Your task to perform on an android device: When is my next meeting? Image 0: 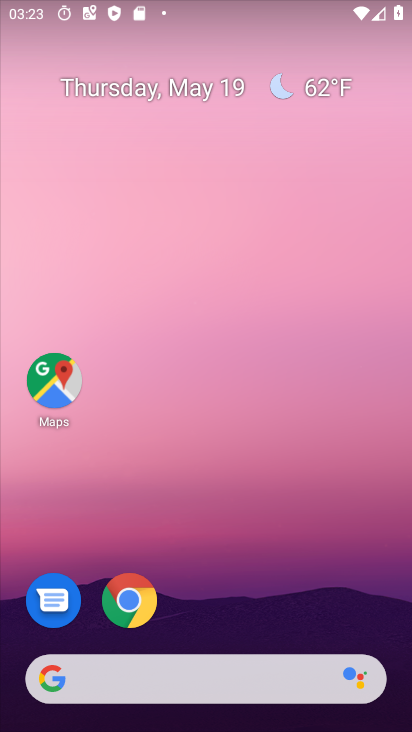
Step 0: drag from (73, 458) to (210, 142)
Your task to perform on an android device: When is my next meeting? Image 1: 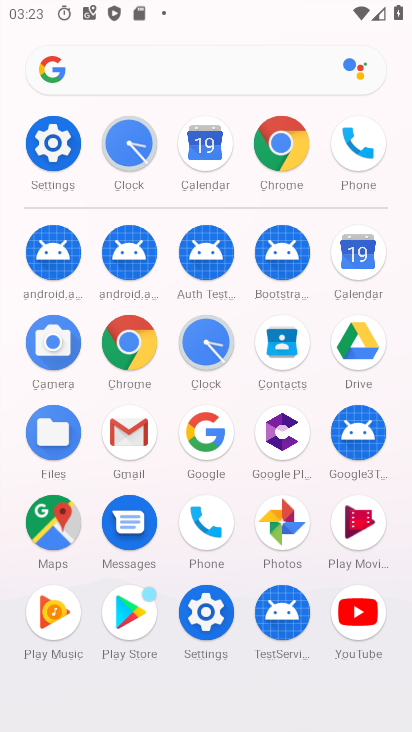
Step 1: click (363, 279)
Your task to perform on an android device: When is my next meeting? Image 2: 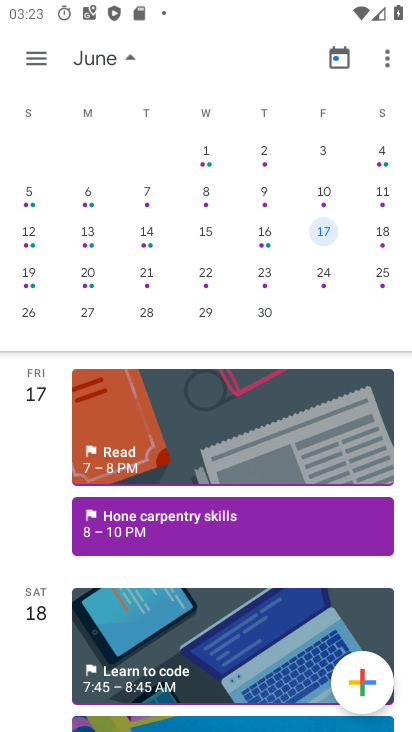
Step 2: task complete